Your task to perform on an android device: Open Google Maps Image 0: 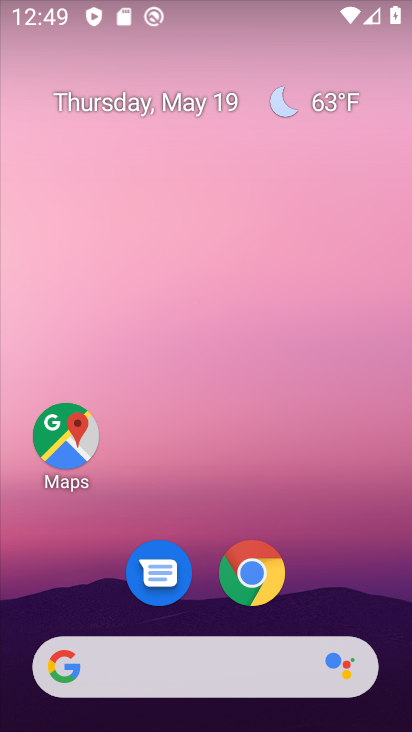
Step 0: drag from (317, 548) to (376, 176)
Your task to perform on an android device: Open Google Maps Image 1: 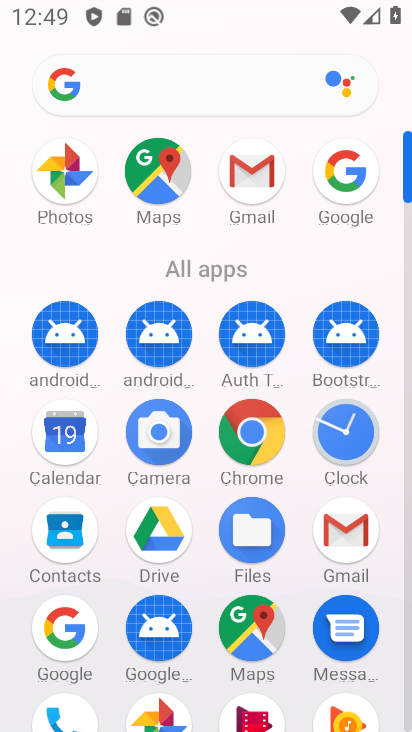
Step 1: click (74, 620)
Your task to perform on an android device: Open Google Maps Image 2: 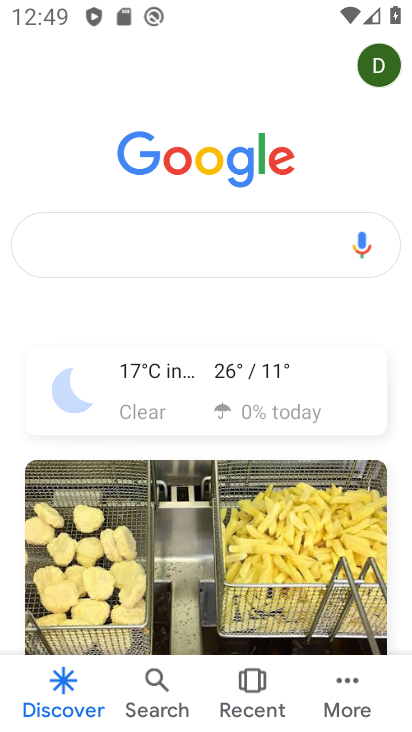
Step 2: task complete